Your task to perform on an android device: Open the map Image 0: 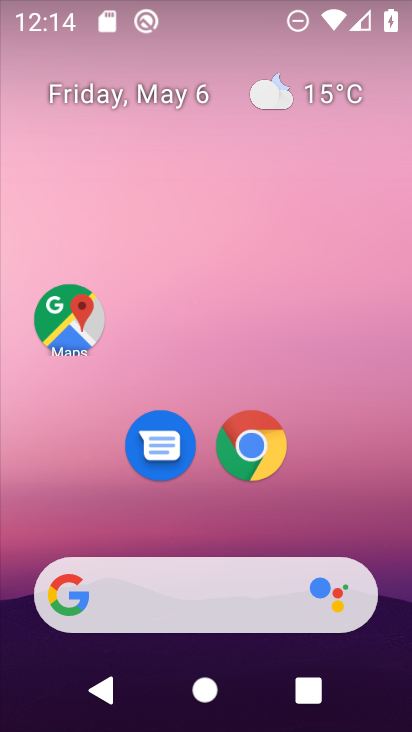
Step 0: click (63, 328)
Your task to perform on an android device: Open the map Image 1: 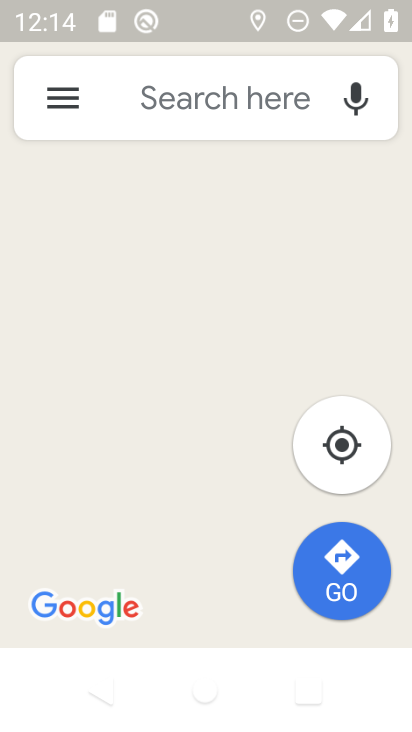
Step 1: task complete